Your task to perform on an android device: Open Reddit.com Image 0: 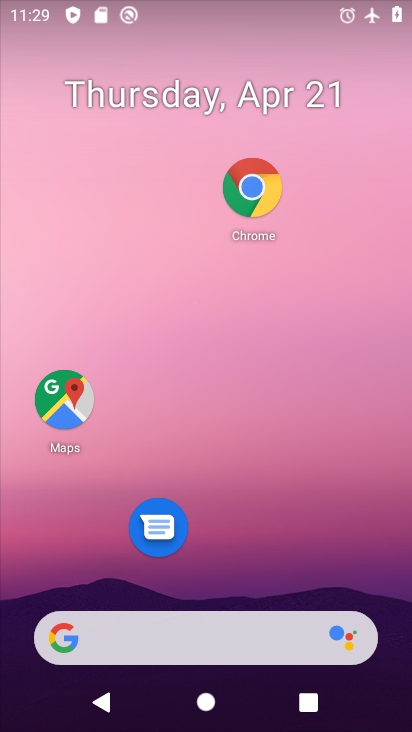
Step 0: drag from (270, 580) to (367, 156)
Your task to perform on an android device: Open Reddit.com Image 1: 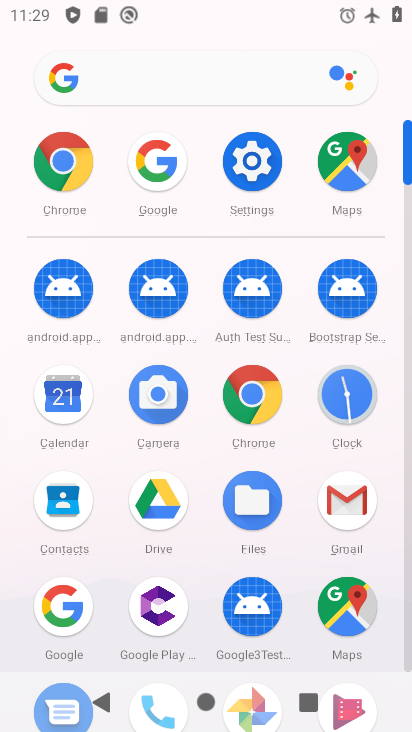
Step 1: click (69, 168)
Your task to perform on an android device: Open Reddit.com Image 2: 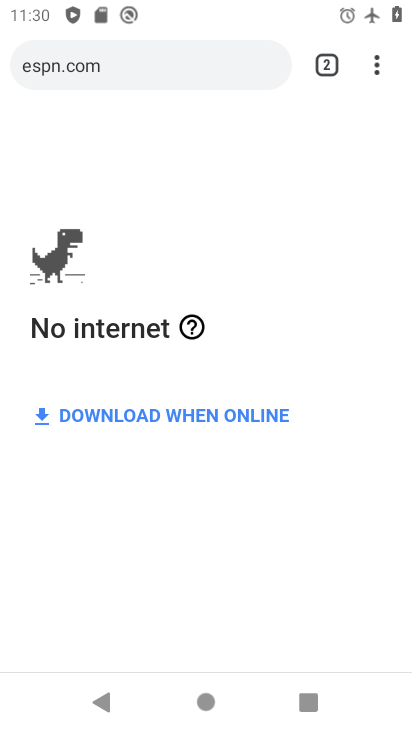
Step 2: click (241, 68)
Your task to perform on an android device: Open Reddit.com Image 3: 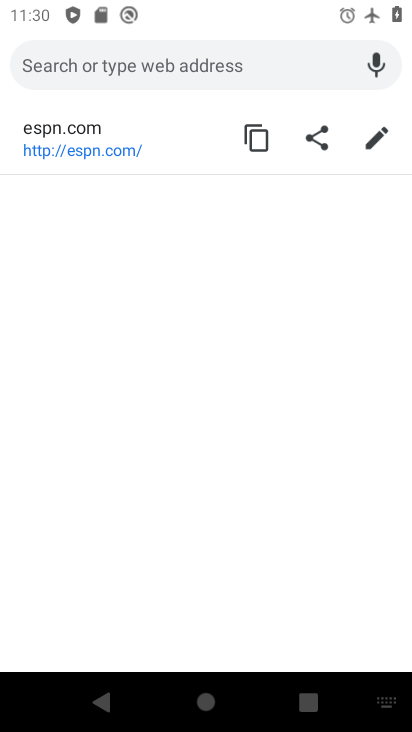
Step 3: type "reddit.com"
Your task to perform on an android device: Open Reddit.com Image 4: 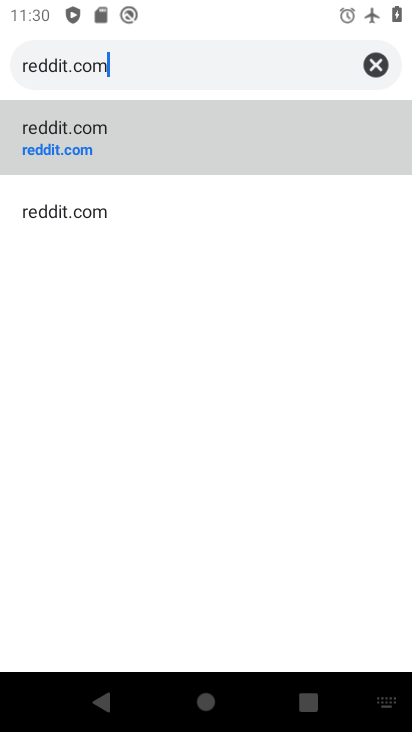
Step 4: click (290, 143)
Your task to perform on an android device: Open Reddit.com Image 5: 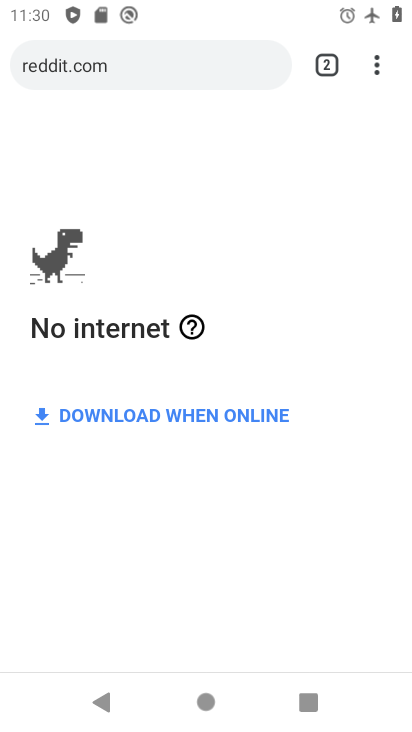
Step 5: task complete